Your task to perform on an android device: Open Youtube and go to the subscriptions tab Image 0: 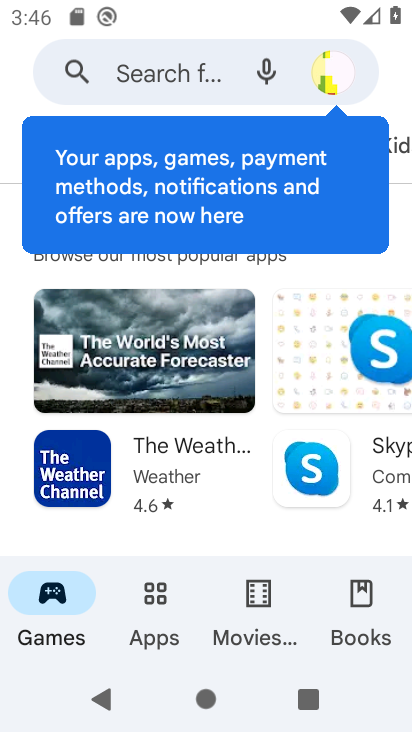
Step 0: press home button
Your task to perform on an android device: Open Youtube and go to the subscriptions tab Image 1: 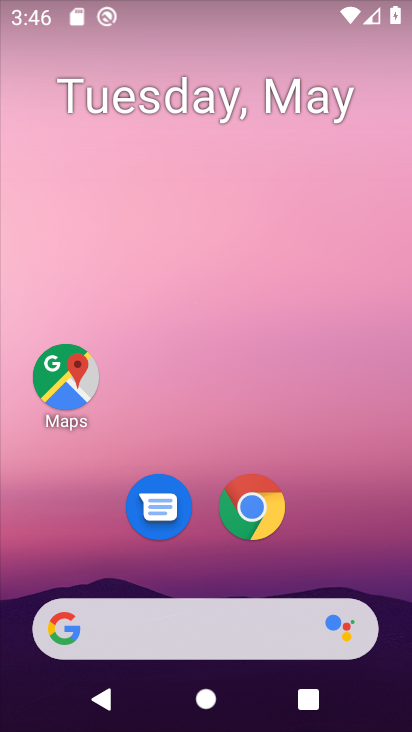
Step 1: drag from (315, 529) to (296, 5)
Your task to perform on an android device: Open Youtube and go to the subscriptions tab Image 2: 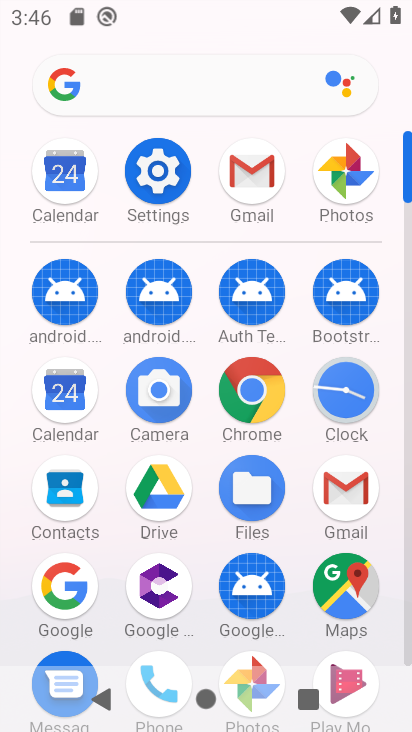
Step 2: drag from (296, 617) to (327, 239)
Your task to perform on an android device: Open Youtube and go to the subscriptions tab Image 3: 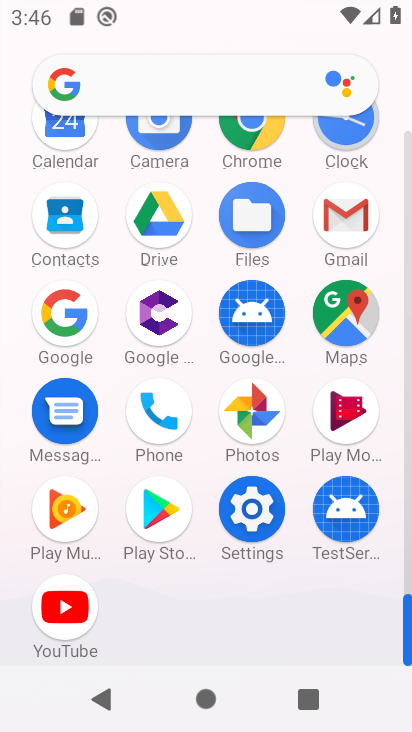
Step 3: click (68, 609)
Your task to perform on an android device: Open Youtube and go to the subscriptions tab Image 4: 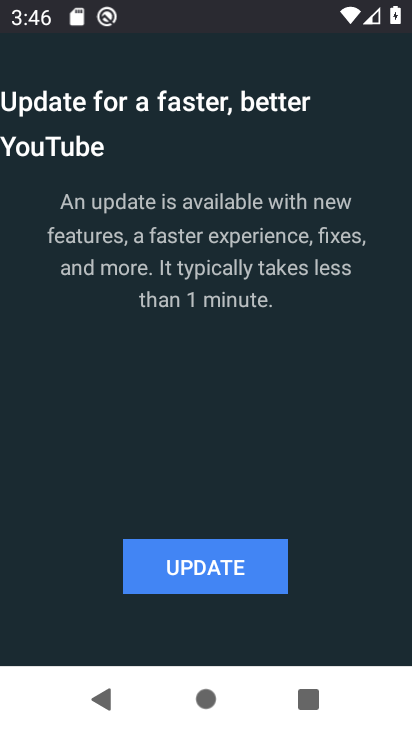
Step 4: click (203, 566)
Your task to perform on an android device: Open Youtube and go to the subscriptions tab Image 5: 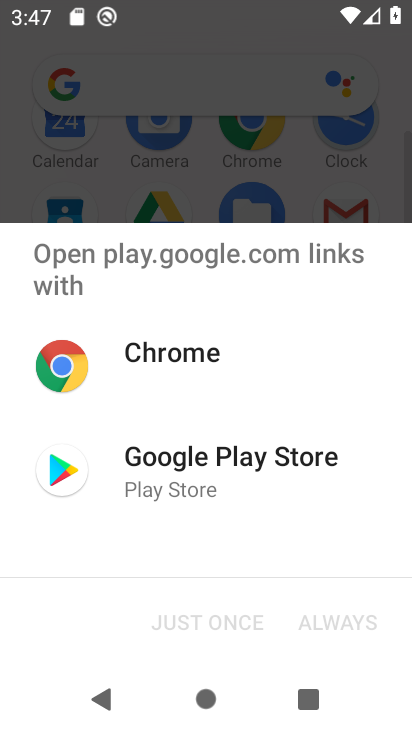
Step 5: click (95, 459)
Your task to perform on an android device: Open Youtube and go to the subscriptions tab Image 6: 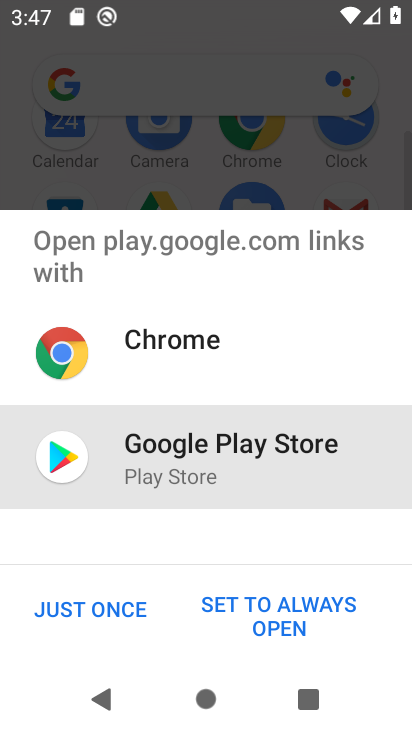
Step 6: click (50, 598)
Your task to perform on an android device: Open Youtube and go to the subscriptions tab Image 7: 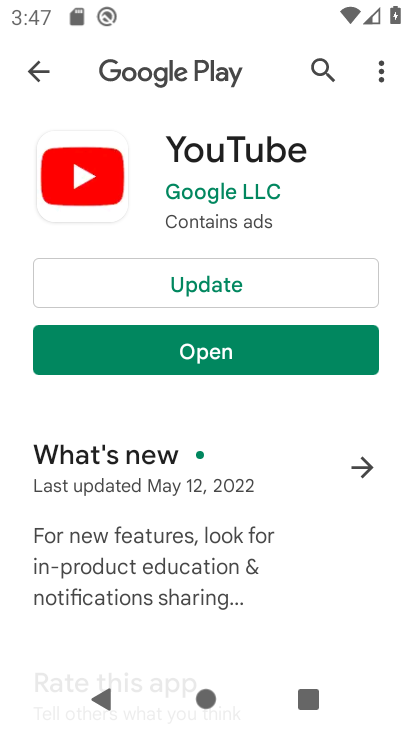
Step 7: click (210, 282)
Your task to perform on an android device: Open Youtube and go to the subscriptions tab Image 8: 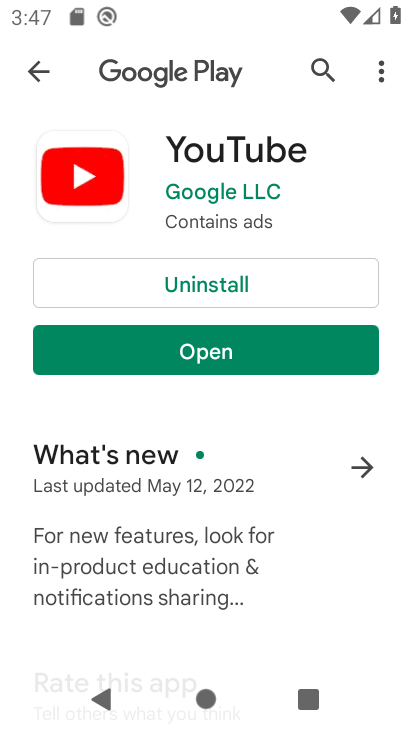
Step 8: click (178, 347)
Your task to perform on an android device: Open Youtube and go to the subscriptions tab Image 9: 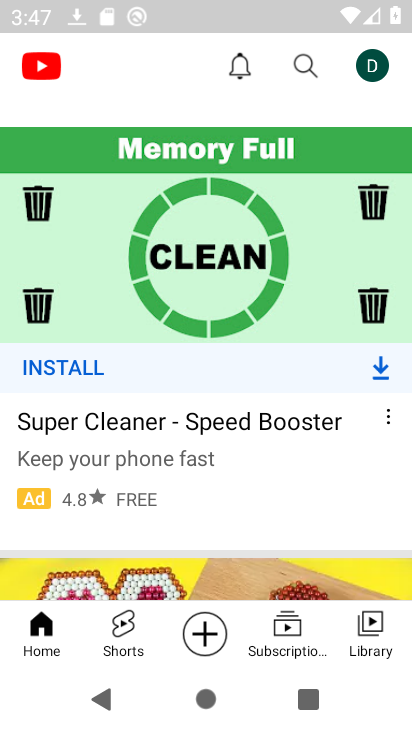
Step 9: click (293, 646)
Your task to perform on an android device: Open Youtube and go to the subscriptions tab Image 10: 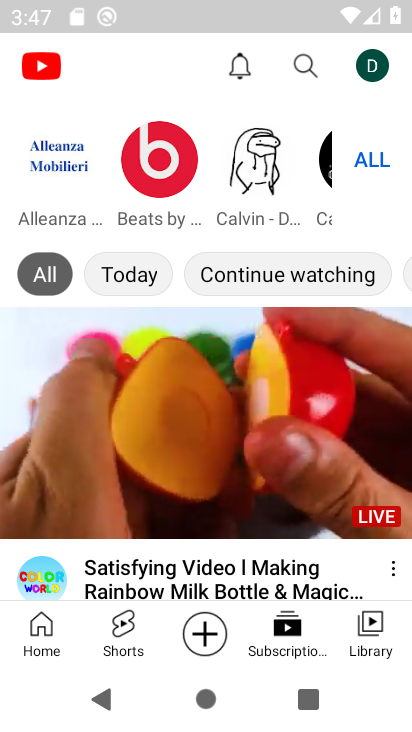
Step 10: task complete